Your task to perform on an android device: Show me productivity apps on the Play Store Image 0: 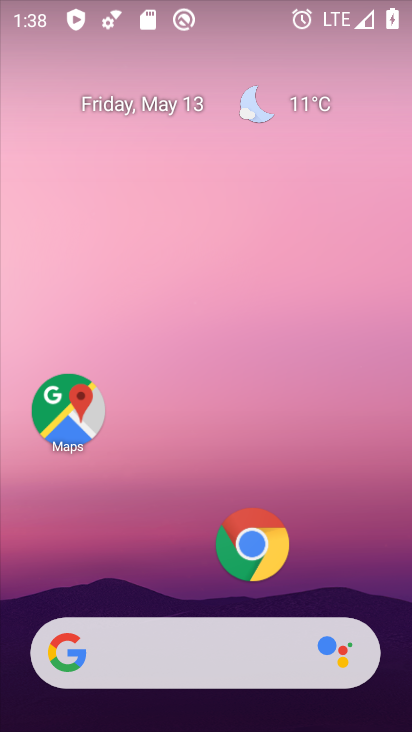
Step 0: drag from (174, 529) to (210, 216)
Your task to perform on an android device: Show me productivity apps on the Play Store Image 1: 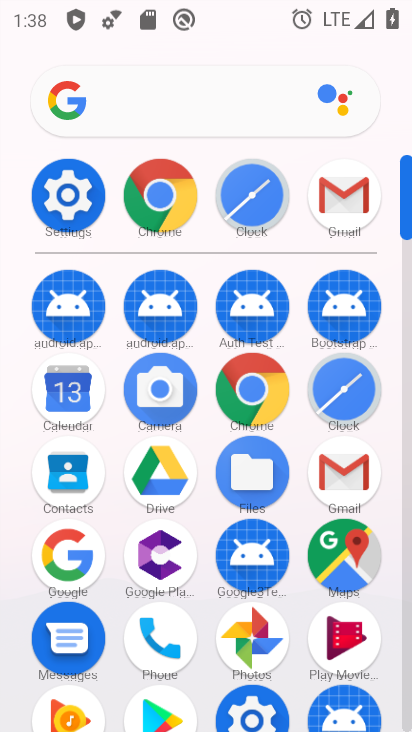
Step 1: drag from (203, 665) to (225, 386)
Your task to perform on an android device: Show me productivity apps on the Play Store Image 2: 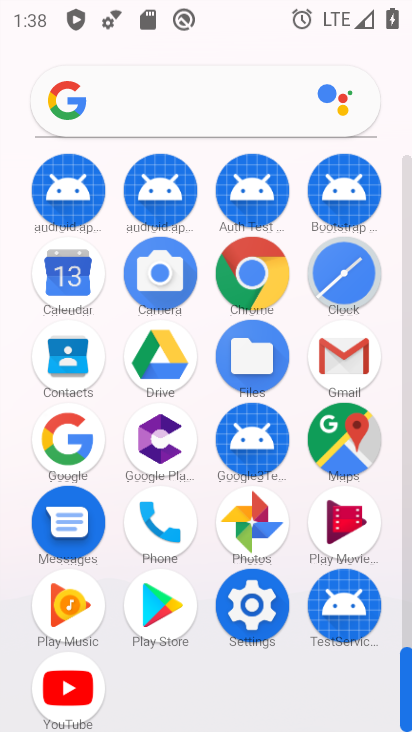
Step 2: click (161, 589)
Your task to perform on an android device: Show me productivity apps on the Play Store Image 3: 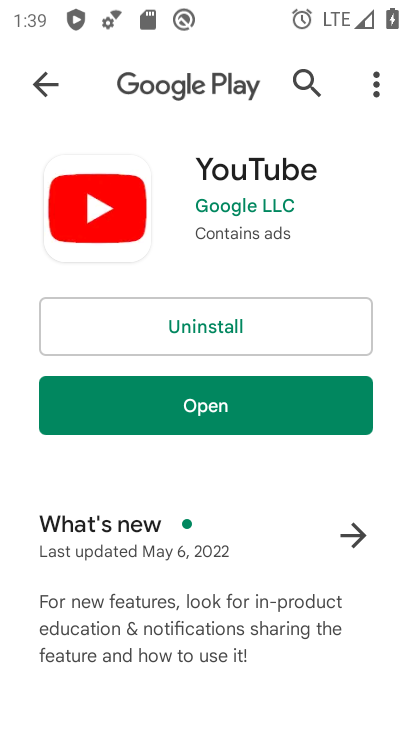
Step 3: click (44, 78)
Your task to perform on an android device: Show me productivity apps on the Play Store Image 4: 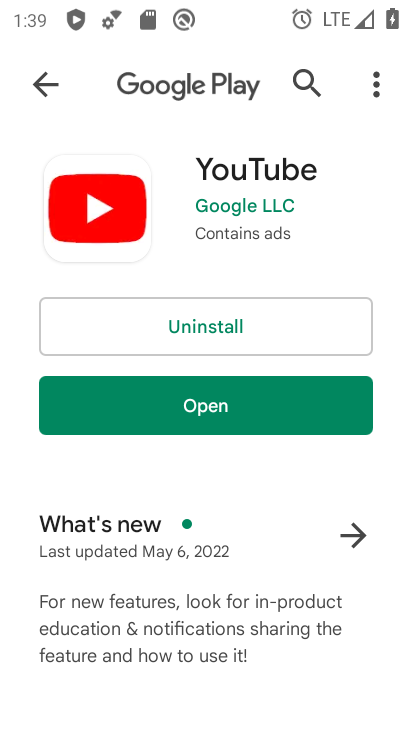
Step 4: click (61, 83)
Your task to perform on an android device: Show me productivity apps on the Play Store Image 5: 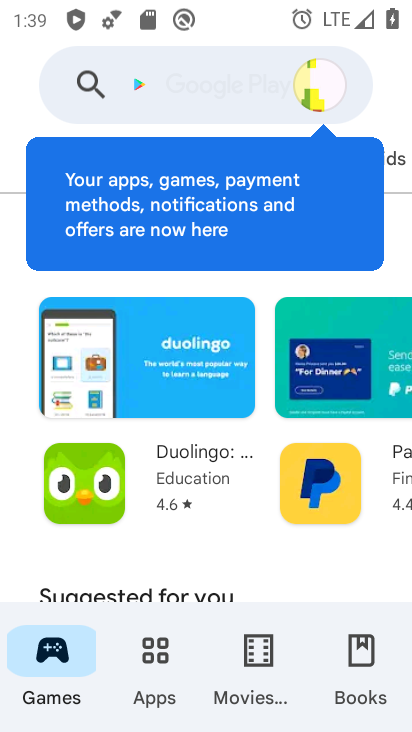
Step 5: click (162, 689)
Your task to perform on an android device: Show me productivity apps on the Play Store Image 6: 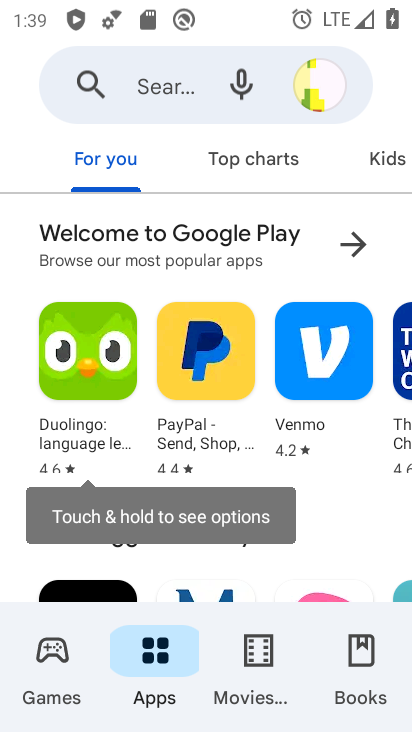
Step 6: drag from (364, 141) to (55, 158)
Your task to perform on an android device: Show me productivity apps on the Play Store Image 7: 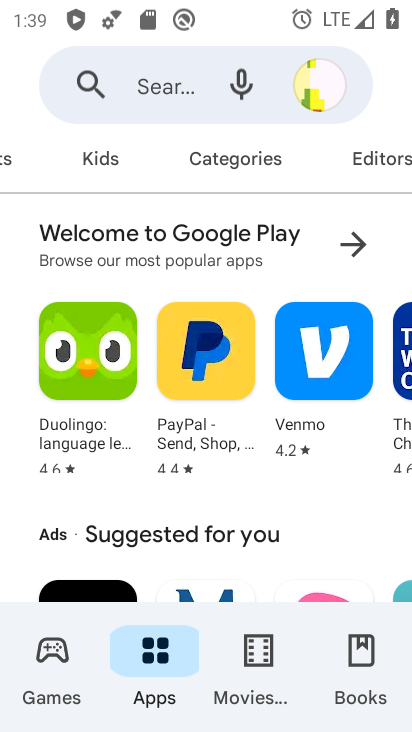
Step 7: click (238, 161)
Your task to perform on an android device: Show me productivity apps on the Play Store Image 8: 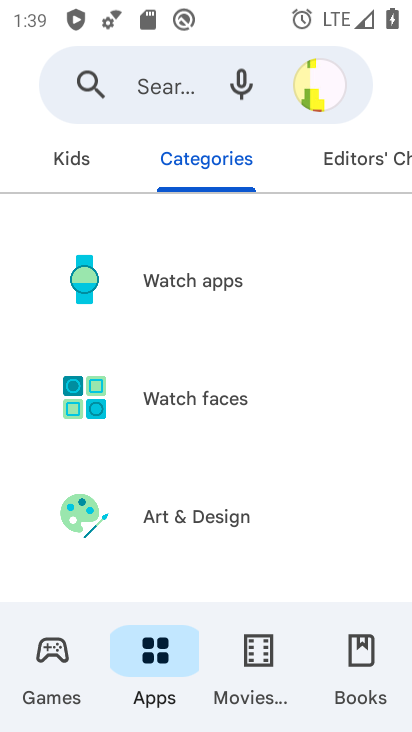
Step 8: drag from (275, 525) to (311, 169)
Your task to perform on an android device: Show me productivity apps on the Play Store Image 9: 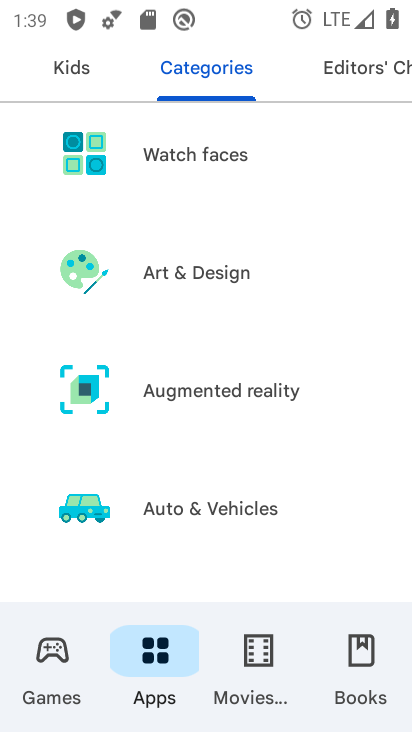
Step 9: drag from (239, 534) to (292, 195)
Your task to perform on an android device: Show me productivity apps on the Play Store Image 10: 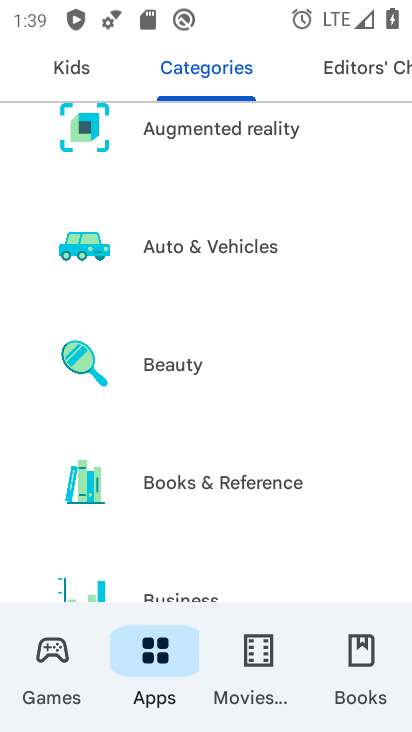
Step 10: drag from (226, 550) to (270, 247)
Your task to perform on an android device: Show me productivity apps on the Play Store Image 11: 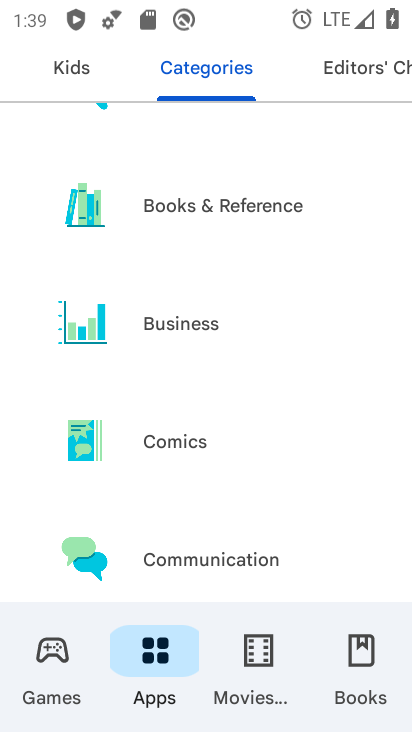
Step 11: drag from (233, 560) to (261, 272)
Your task to perform on an android device: Show me productivity apps on the Play Store Image 12: 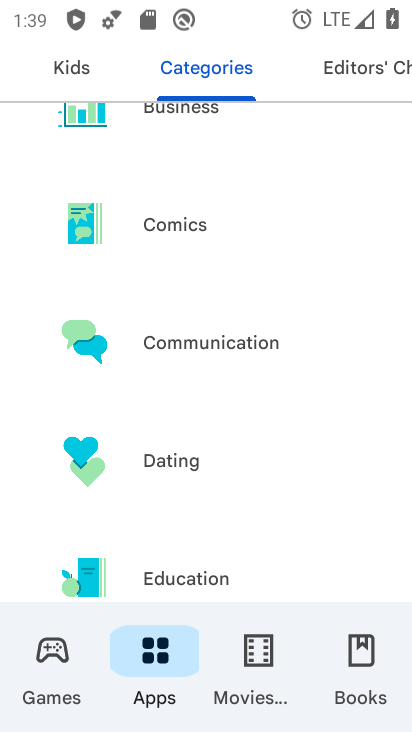
Step 12: drag from (214, 574) to (248, 266)
Your task to perform on an android device: Show me productivity apps on the Play Store Image 13: 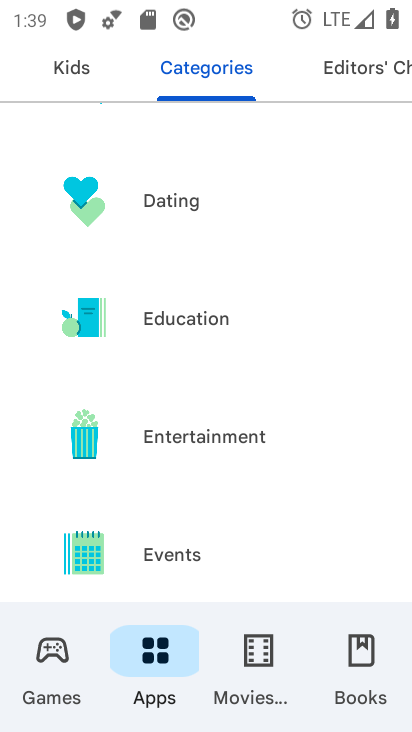
Step 13: drag from (216, 580) to (271, 97)
Your task to perform on an android device: Show me productivity apps on the Play Store Image 14: 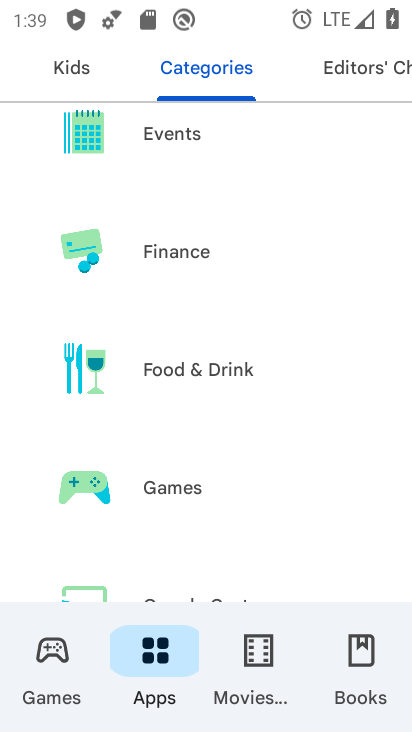
Step 14: drag from (224, 555) to (298, 198)
Your task to perform on an android device: Show me productivity apps on the Play Store Image 15: 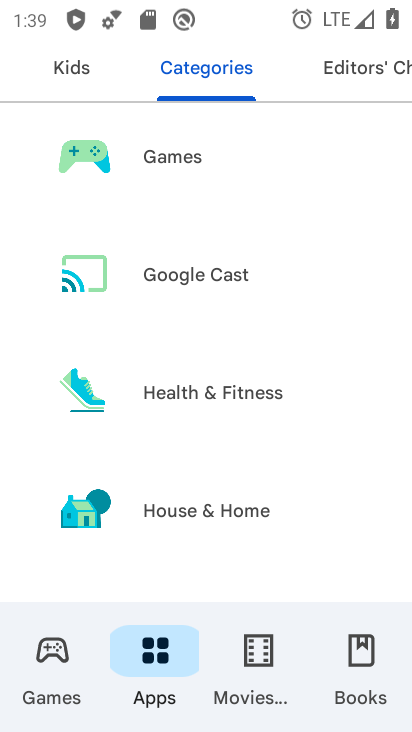
Step 15: drag from (227, 570) to (324, 241)
Your task to perform on an android device: Show me productivity apps on the Play Store Image 16: 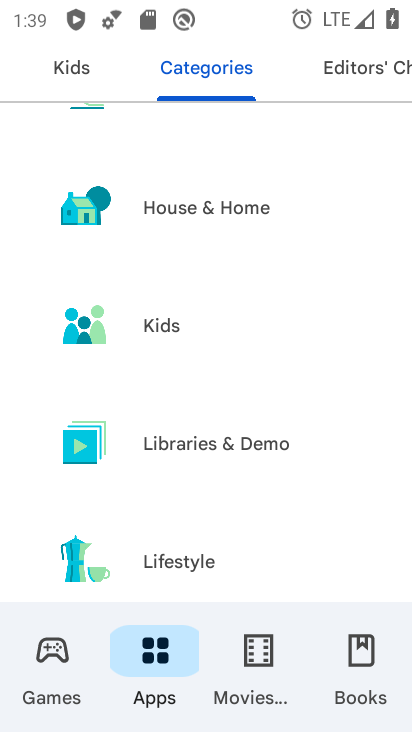
Step 16: drag from (235, 564) to (284, 235)
Your task to perform on an android device: Show me productivity apps on the Play Store Image 17: 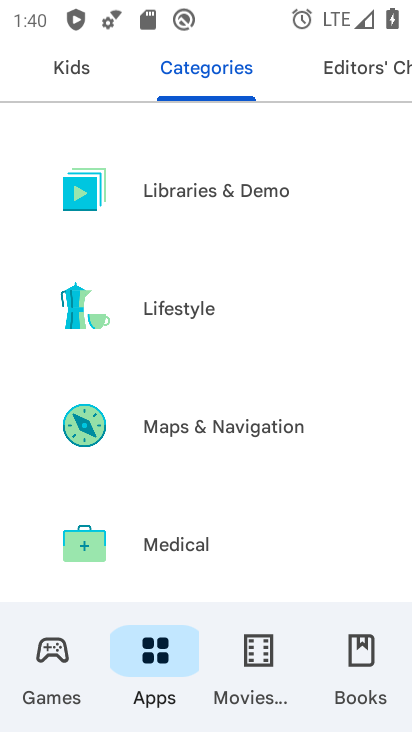
Step 17: drag from (271, 569) to (307, 187)
Your task to perform on an android device: Show me productivity apps on the Play Store Image 18: 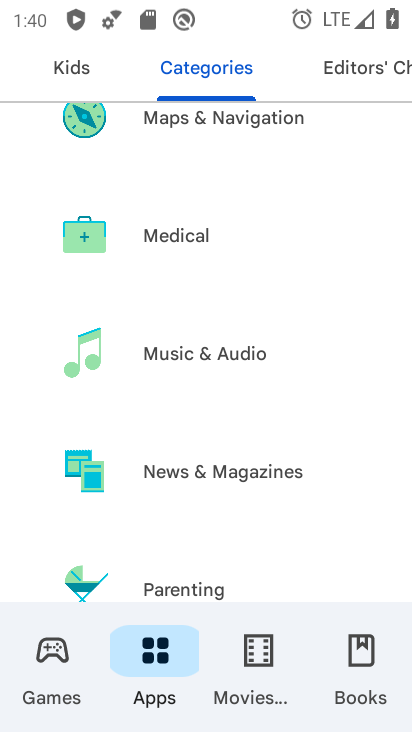
Step 18: drag from (233, 544) to (236, 215)
Your task to perform on an android device: Show me productivity apps on the Play Store Image 19: 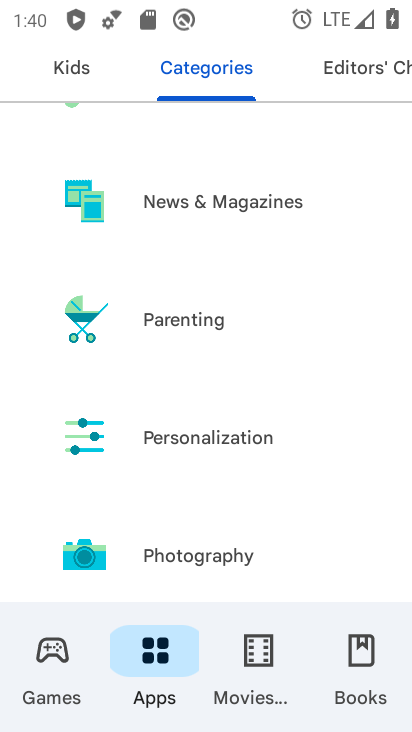
Step 19: drag from (231, 545) to (258, 236)
Your task to perform on an android device: Show me productivity apps on the Play Store Image 20: 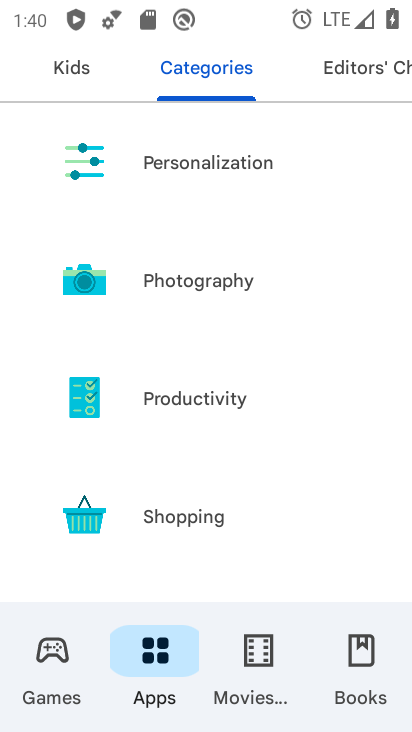
Step 20: click (228, 401)
Your task to perform on an android device: Show me productivity apps on the Play Store Image 21: 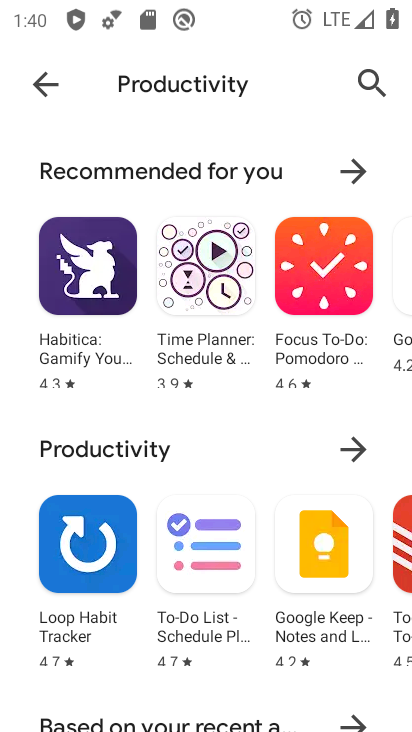
Step 21: task complete